Your task to perform on an android device: Go to Wikipedia Image 0: 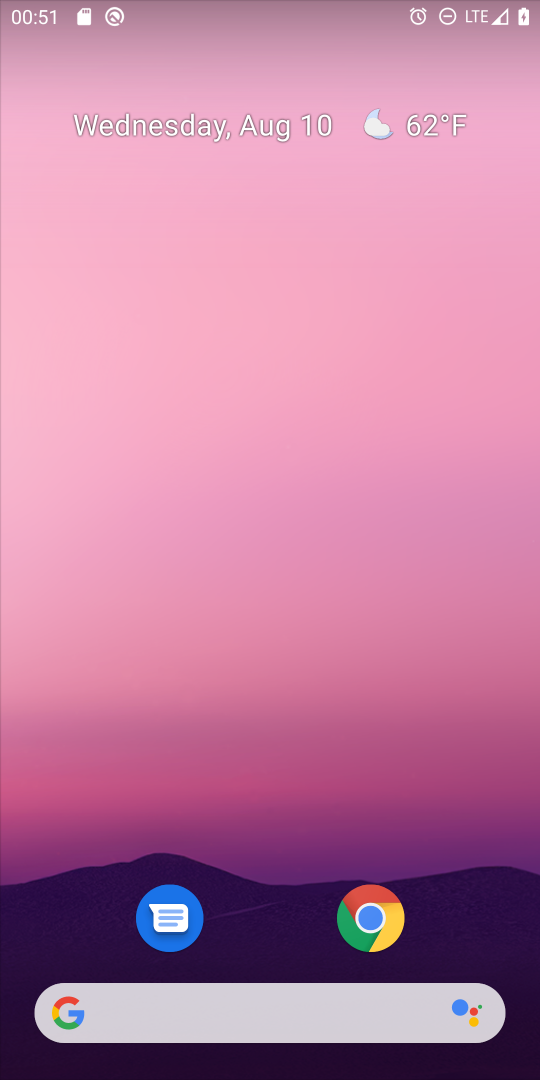
Step 0: drag from (239, 922) to (391, 30)
Your task to perform on an android device: Go to Wikipedia Image 1: 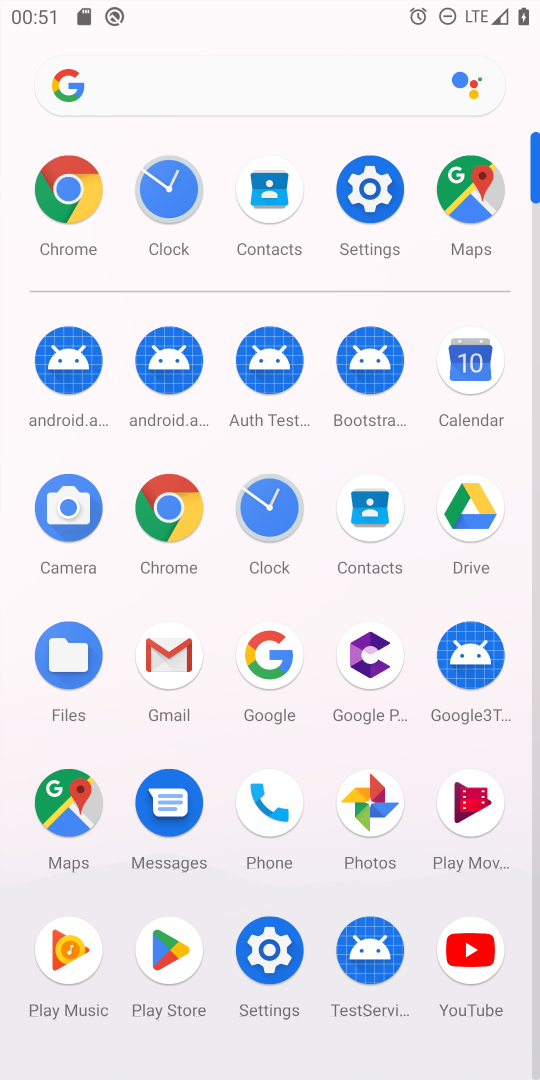
Step 1: click (165, 508)
Your task to perform on an android device: Go to Wikipedia Image 2: 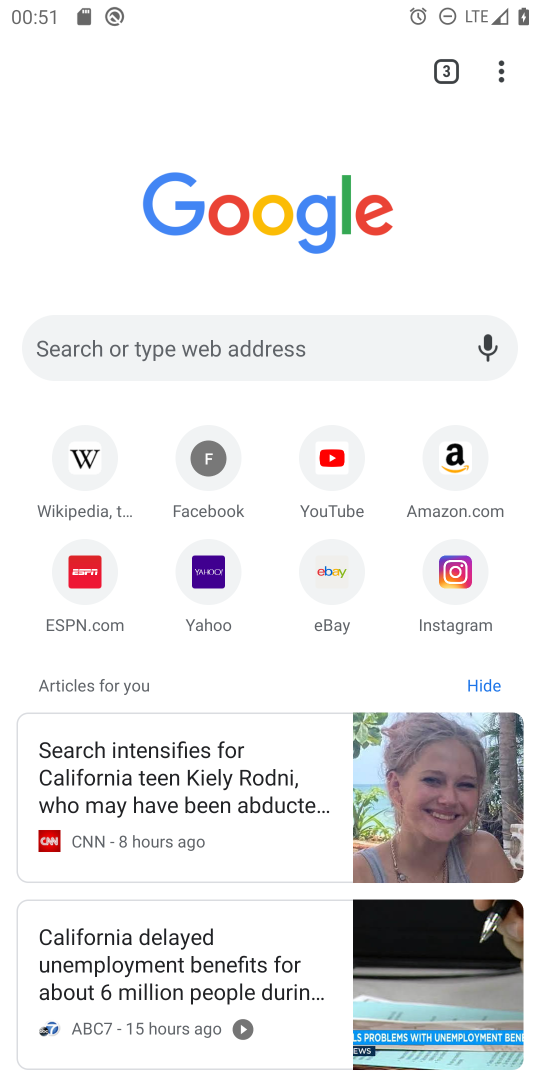
Step 2: click (95, 461)
Your task to perform on an android device: Go to Wikipedia Image 3: 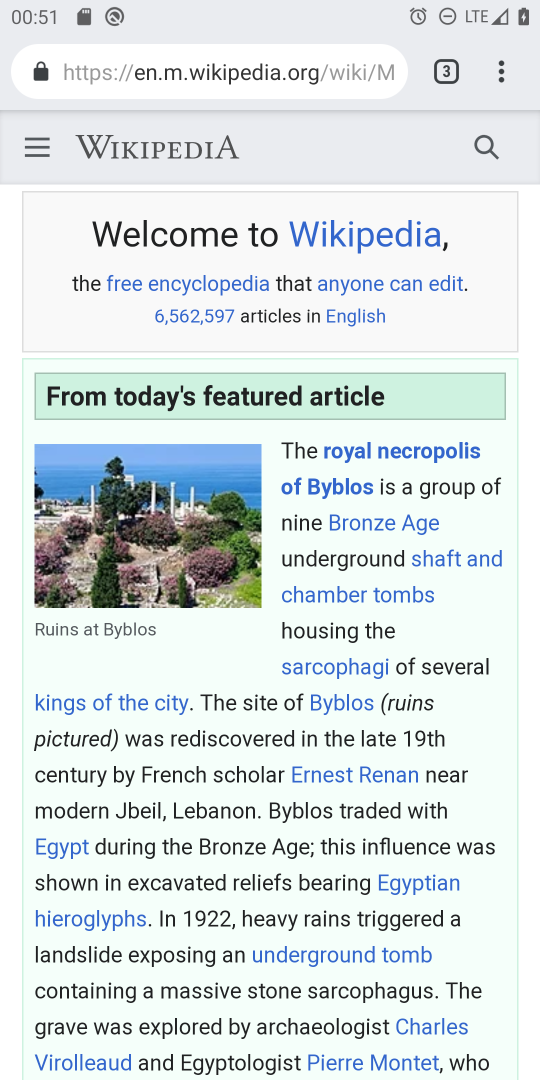
Step 3: task complete